Your task to perform on an android device: Empty the shopping cart on walmart.com. Search for "razer deathadder" on walmart.com, select the first entry, and add it to the cart. Image 0: 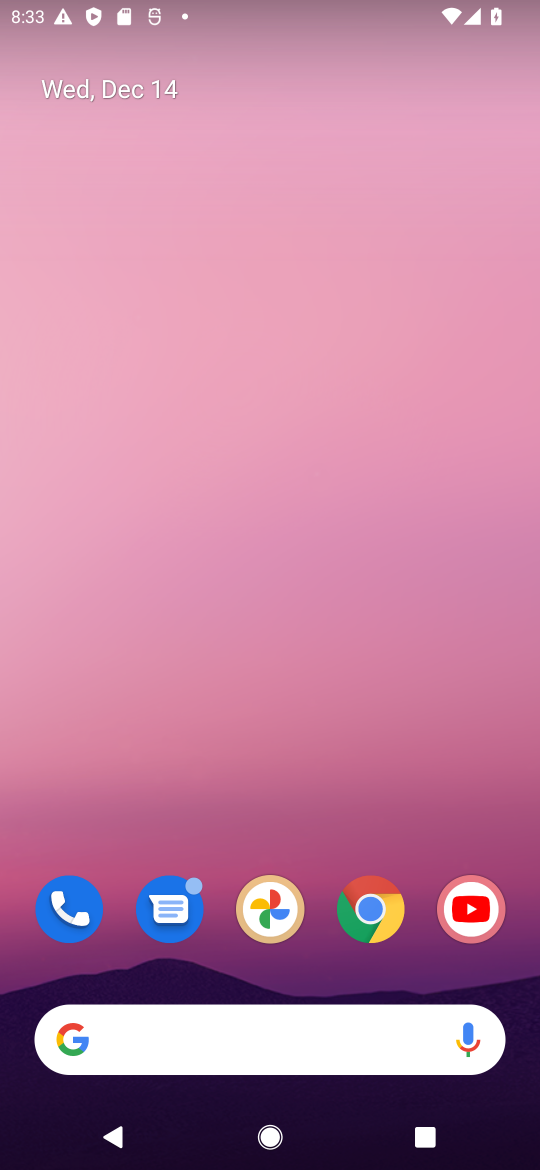
Step 0: click (359, 913)
Your task to perform on an android device: Empty the shopping cart on walmart.com. Search for "razer deathadder" on walmart.com, select the first entry, and add it to the cart. Image 1: 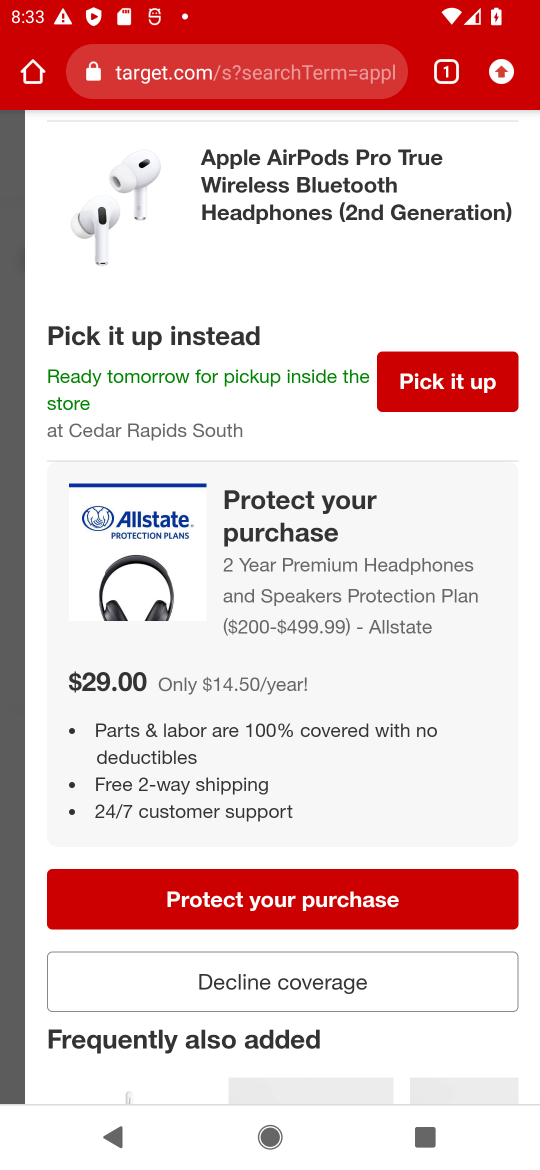
Step 1: click (245, 83)
Your task to perform on an android device: Empty the shopping cart on walmart.com. Search for "razer deathadder" on walmart.com, select the first entry, and add it to the cart. Image 2: 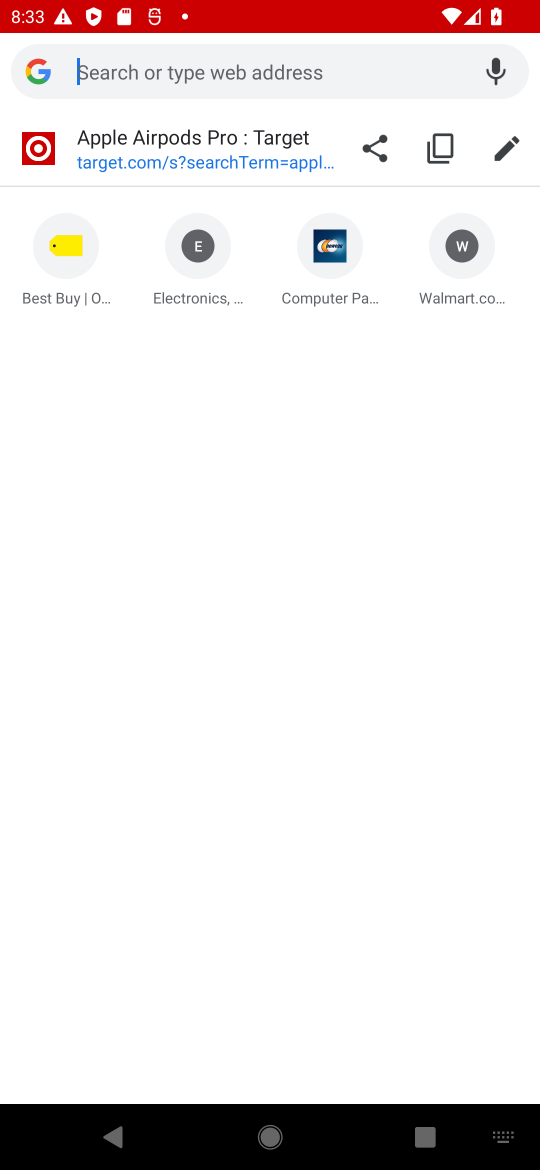
Step 2: type "walmart.com"
Your task to perform on an android device: Empty the shopping cart on walmart.com. Search for "razer deathadder" on walmart.com, select the first entry, and add it to the cart. Image 3: 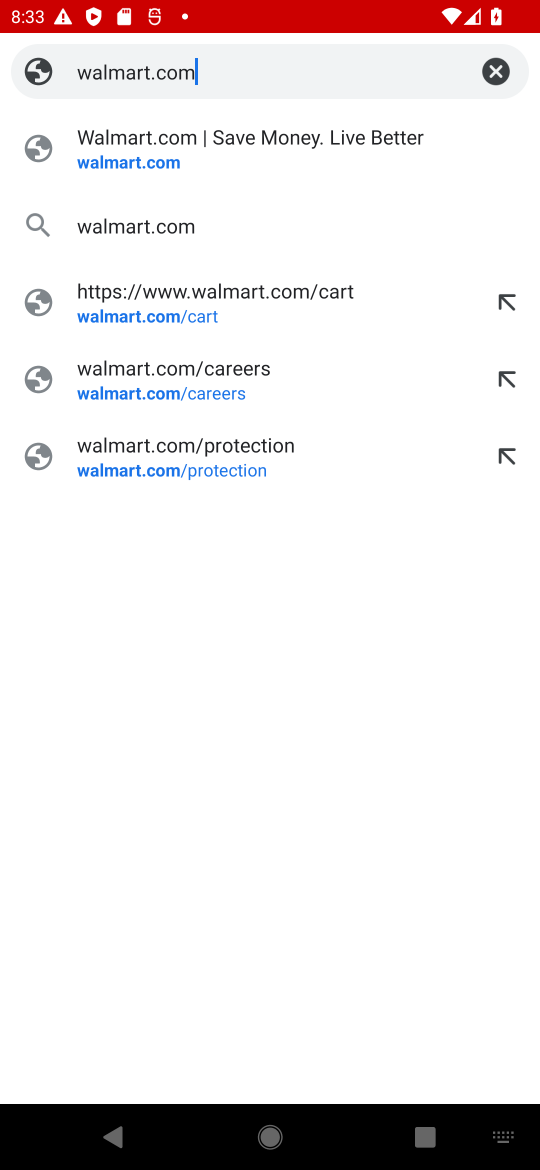
Step 3: click (251, 152)
Your task to perform on an android device: Empty the shopping cart on walmart.com. Search for "razer deathadder" on walmart.com, select the first entry, and add it to the cart. Image 4: 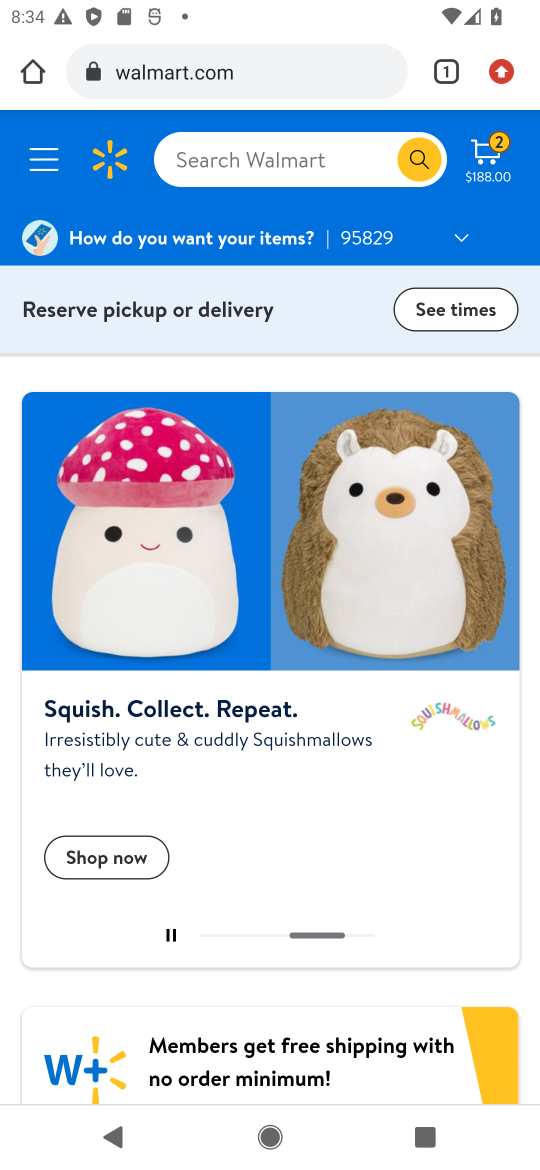
Step 4: click (489, 173)
Your task to perform on an android device: Empty the shopping cart on walmart.com. Search for "razer deathadder" on walmart.com, select the first entry, and add it to the cart. Image 5: 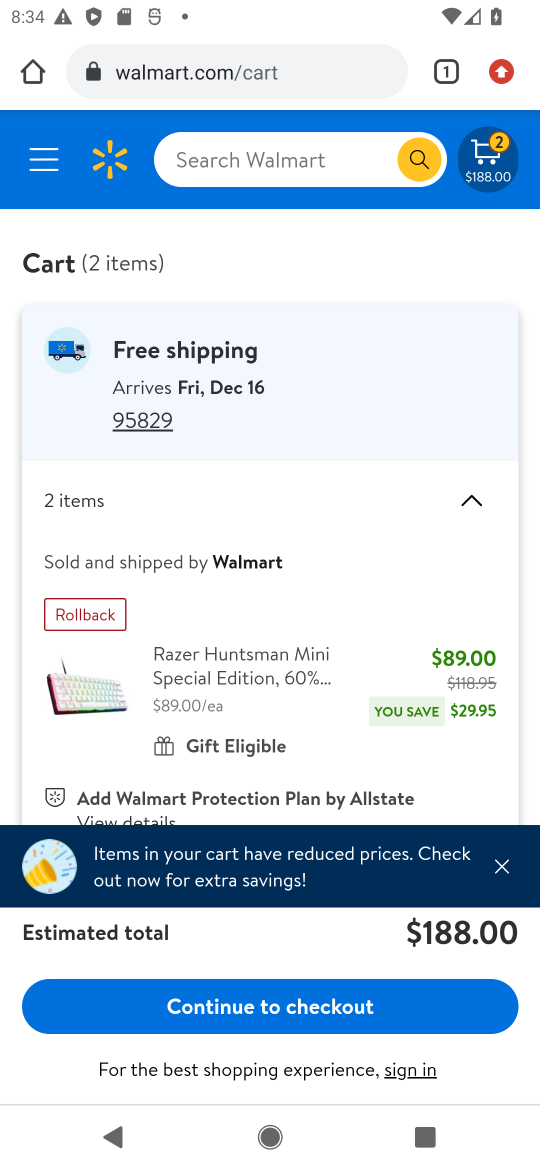
Step 5: drag from (323, 696) to (363, 384)
Your task to perform on an android device: Empty the shopping cart on walmart.com. Search for "razer deathadder" on walmart.com, select the first entry, and add it to the cart. Image 6: 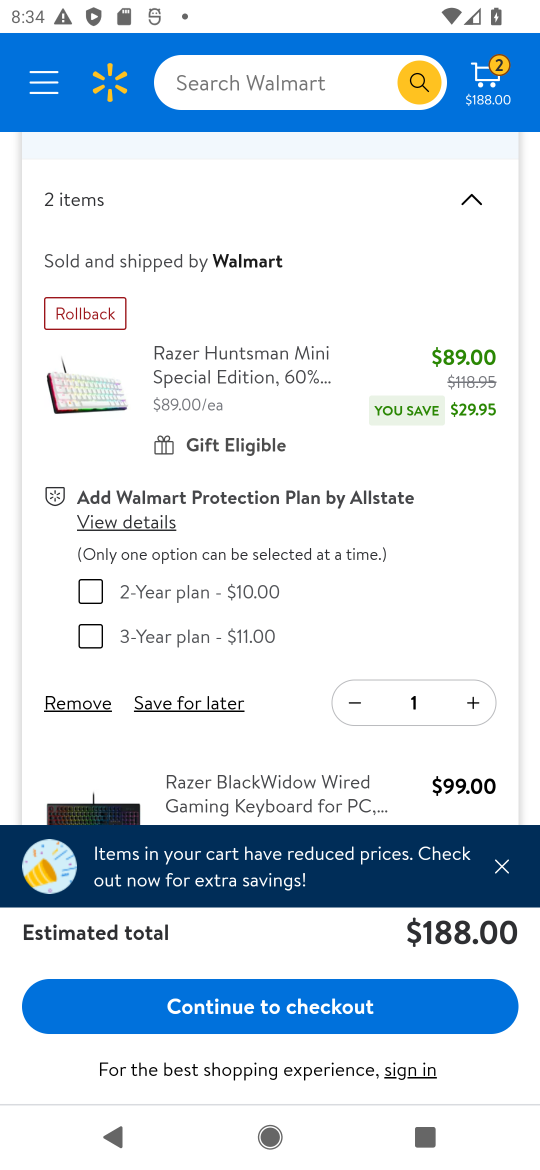
Step 6: click (60, 706)
Your task to perform on an android device: Empty the shopping cart on walmart.com. Search for "razer deathadder" on walmart.com, select the first entry, and add it to the cart. Image 7: 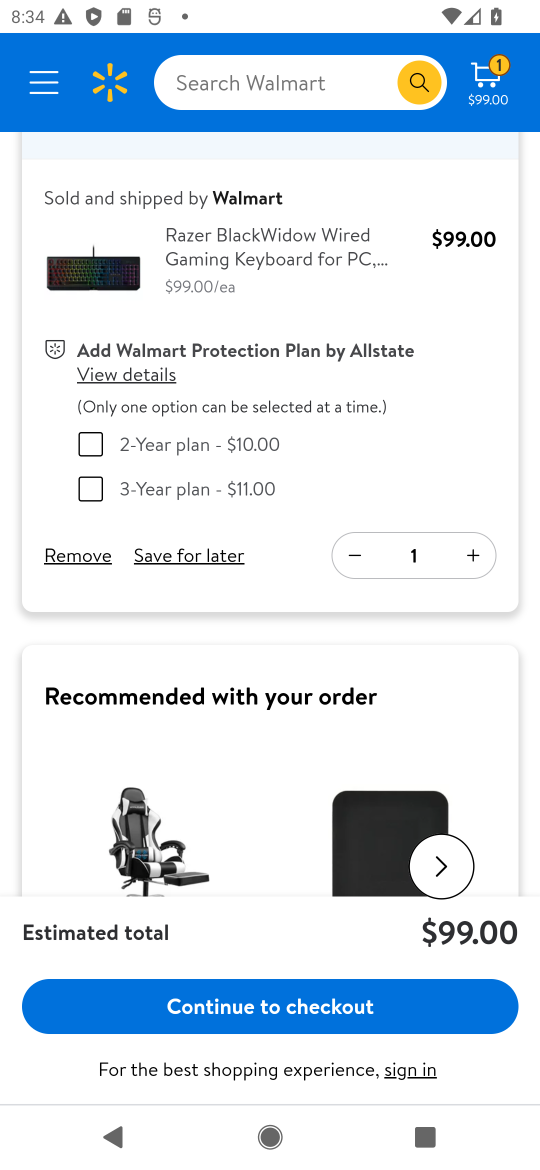
Step 7: click (76, 549)
Your task to perform on an android device: Empty the shopping cart on walmart.com. Search for "razer deathadder" on walmart.com, select the first entry, and add it to the cart. Image 8: 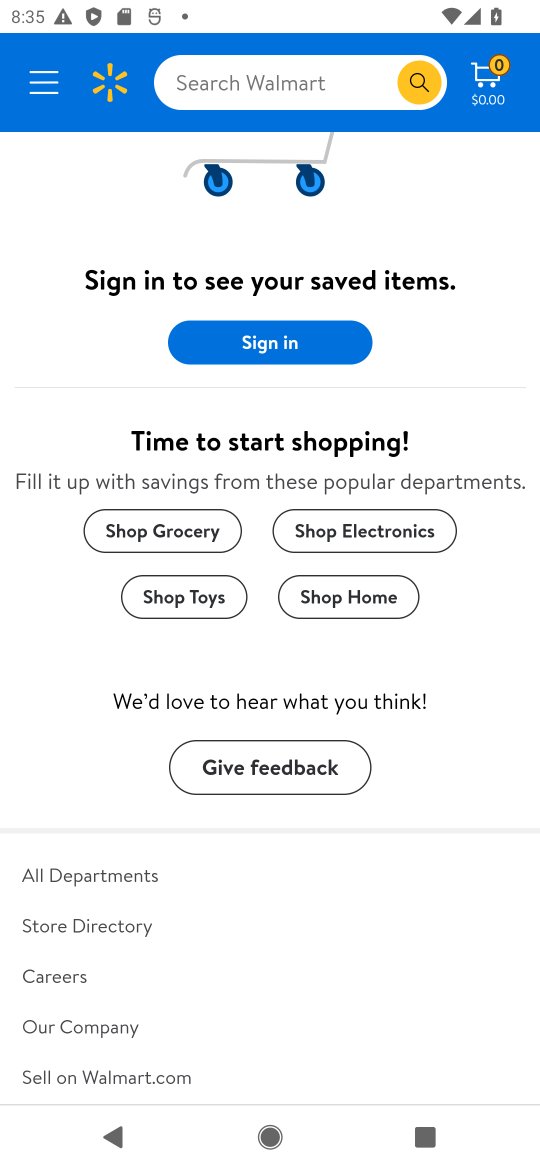
Step 8: click (308, 100)
Your task to perform on an android device: Empty the shopping cart on walmart.com. Search for "razer deathadder" on walmart.com, select the first entry, and add it to the cart. Image 9: 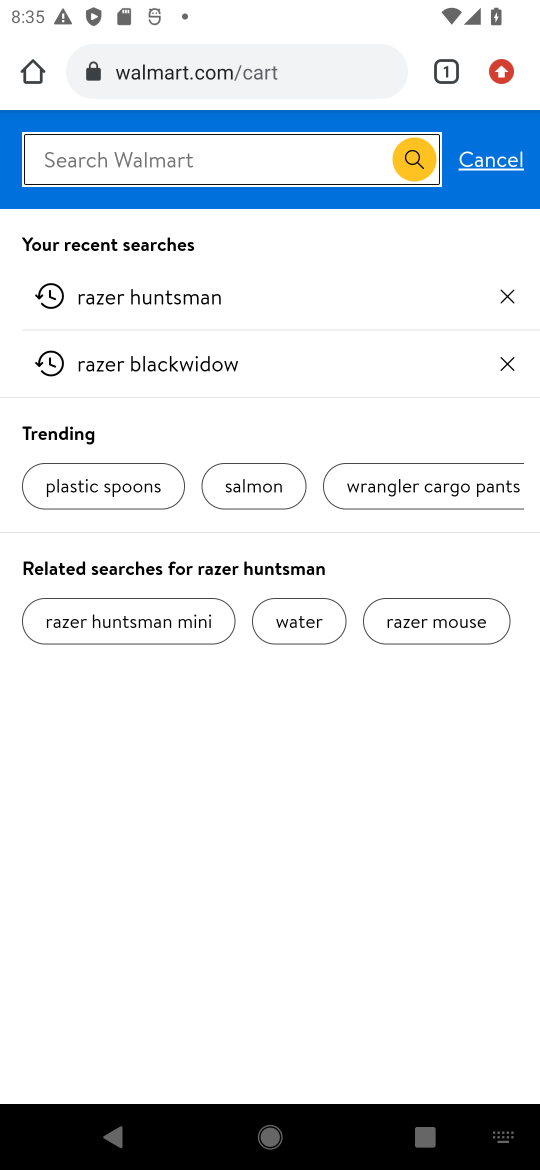
Step 9: type "razer deathadder"
Your task to perform on an android device: Empty the shopping cart on walmart.com. Search for "razer deathadder" on walmart.com, select the first entry, and add it to the cart. Image 10: 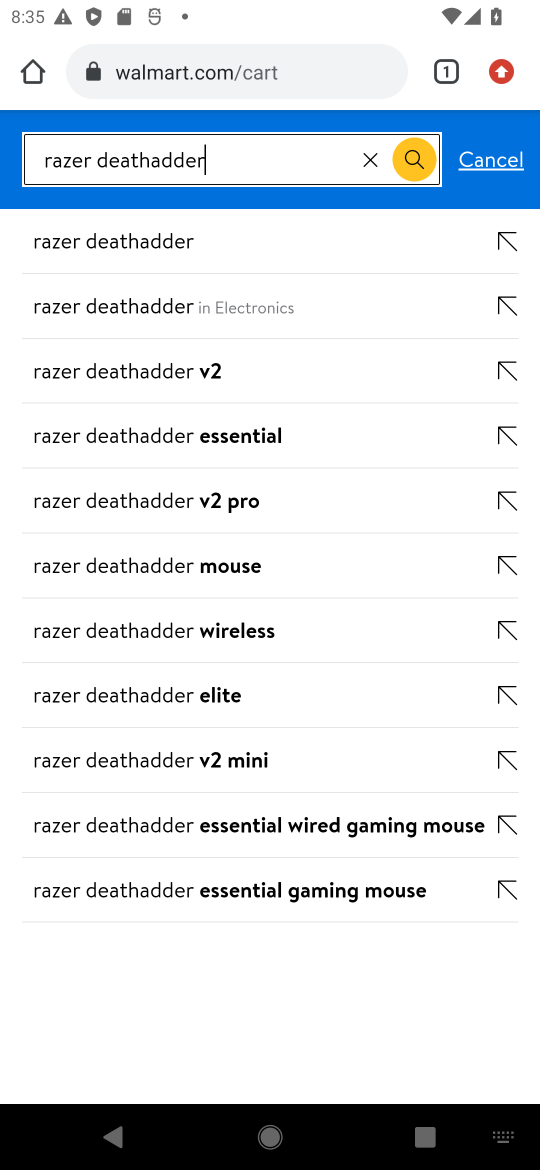
Step 10: press enter
Your task to perform on an android device: Empty the shopping cart on walmart.com. Search for "razer deathadder" on walmart.com, select the first entry, and add it to the cart. Image 11: 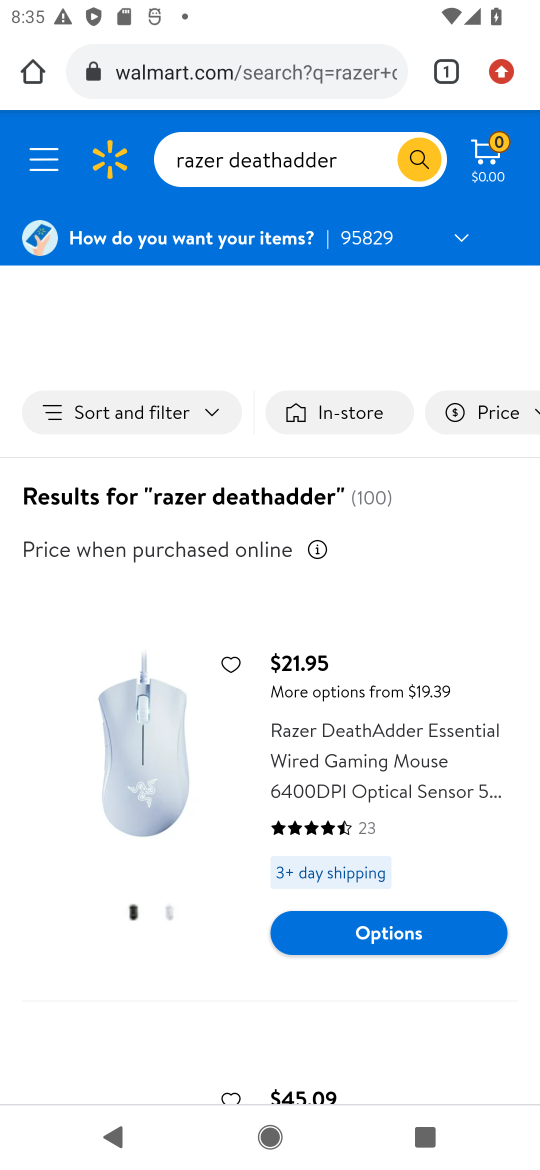
Step 11: click (377, 753)
Your task to perform on an android device: Empty the shopping cart on walmart.com. Search for "razer deathadder" on walmart.com, select the first entry, and add it to the cart. Image 12: 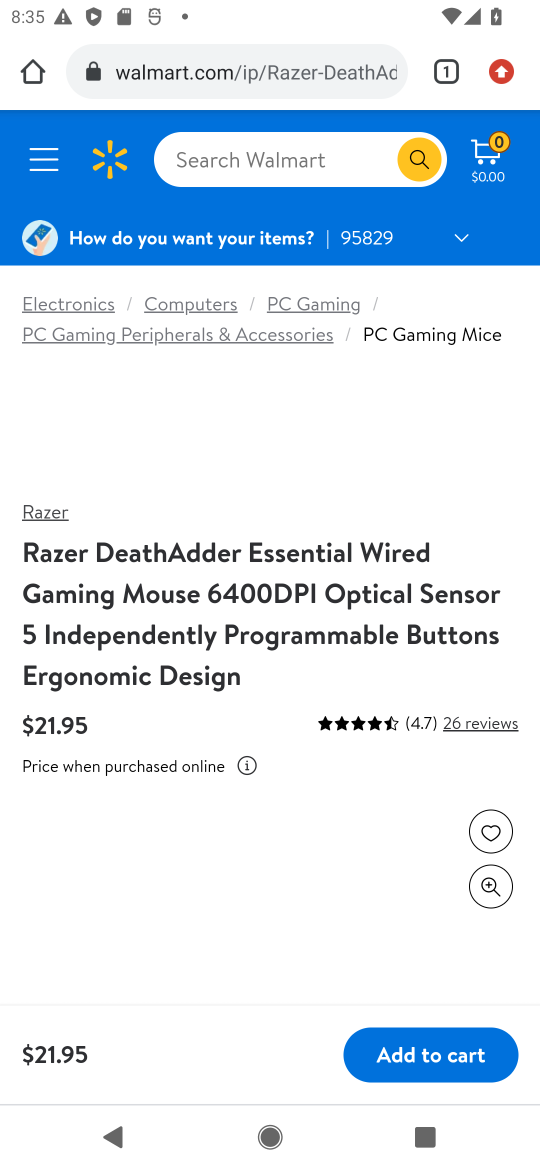
Step 12: click (424, 1055)
Your task to perform on an android device: Empty the shopping cart on walmart.com. Search for "razer deathadder" on walmart.com, select the first entry, and add it to the cart. Image 13: 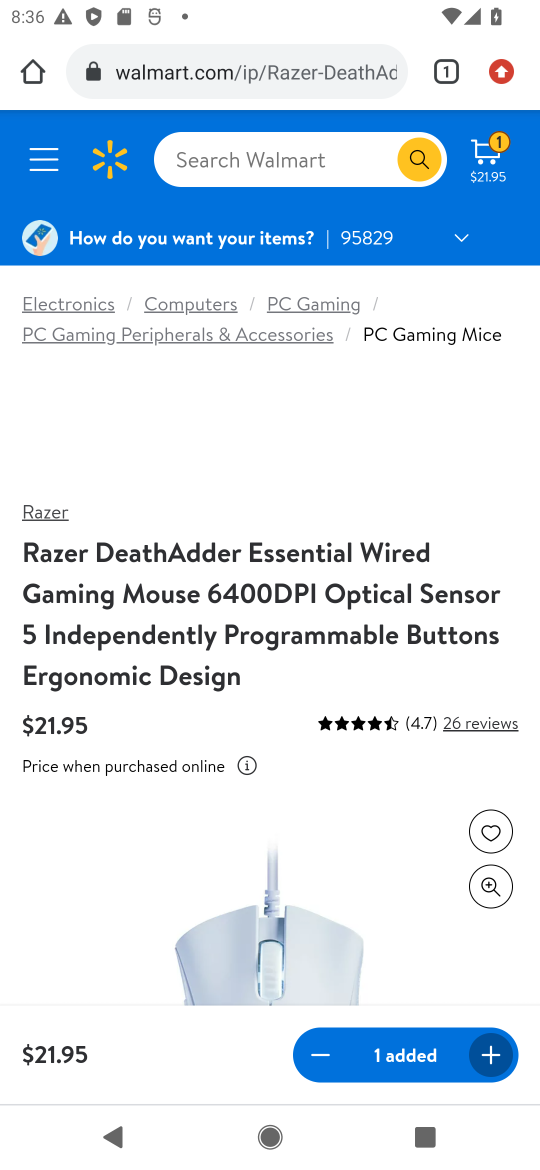
Step 13: click (497, 154)
Your task to perform on an android device: Empty the shopping cart on walmart.com. Search for "razer deathadder" on walmart.com, select the first entry, and add it to the cart. Image 14: 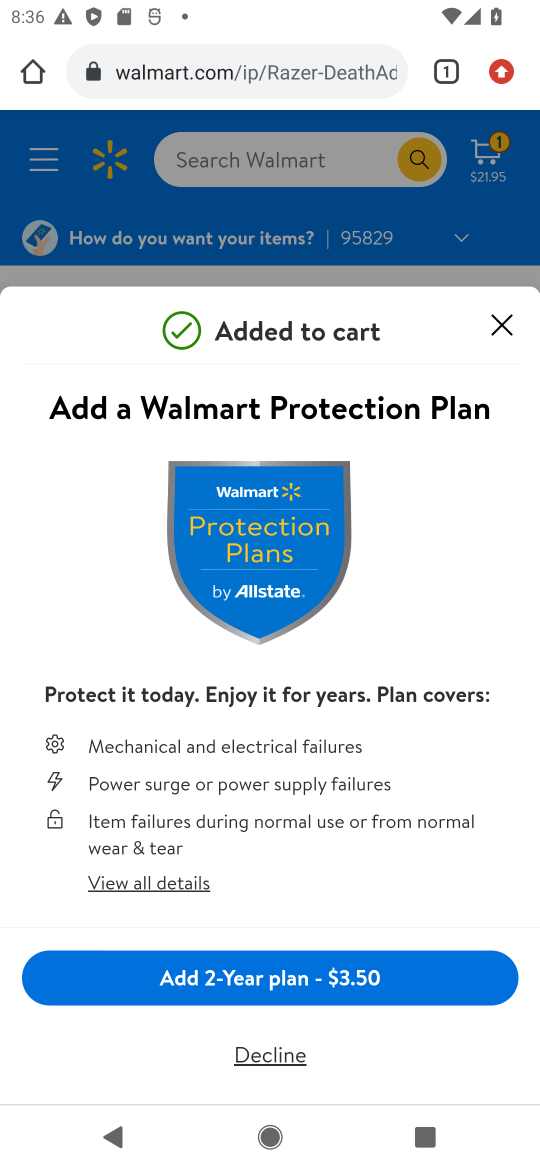
Step 14: click (234, 977)
Your task to perform on an android device: Empty the shopping cart on walmart.com. Search for "razer deathadder" on walmart.com, select the first entry, and add it to the cart. Image 15: 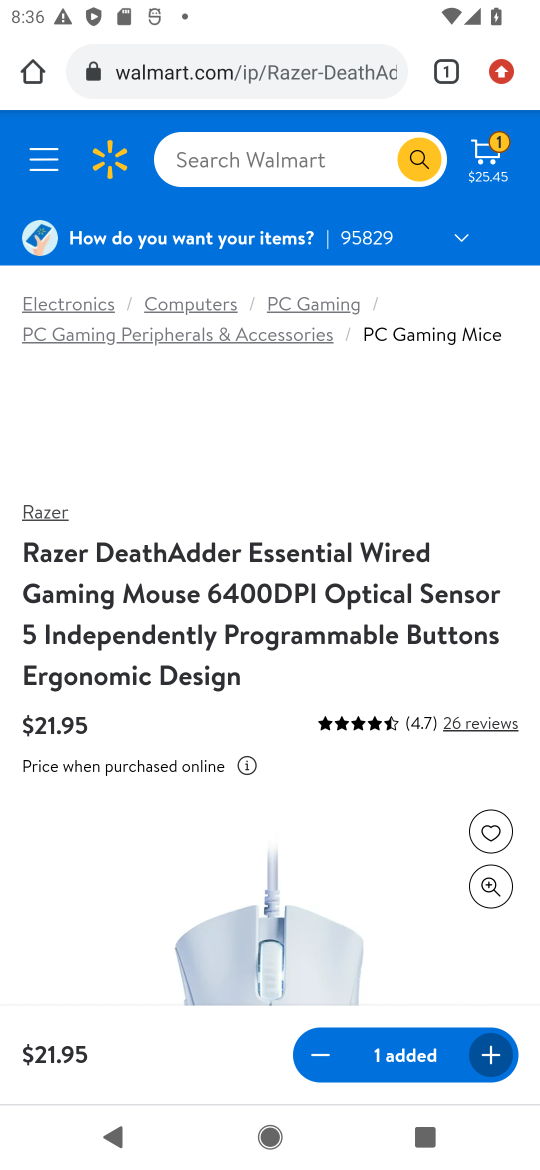
Step 15: task complete